Your task to perform on an android device: manage bookmarks in the chrome app Image 0: 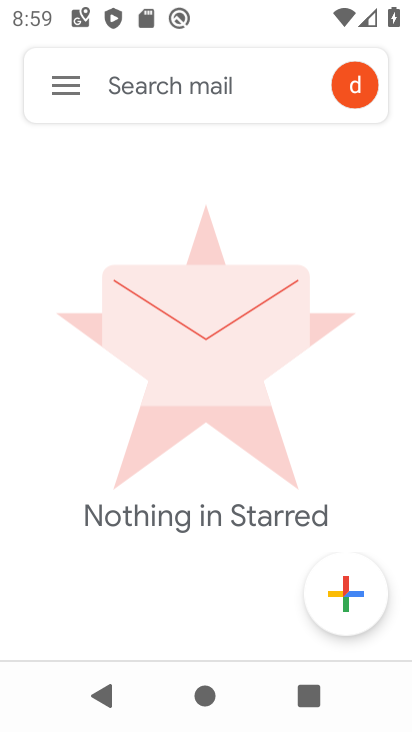
Step 0: press home button
Your task to perform on an android device: manage bookmarks in the chrome app Image 1: 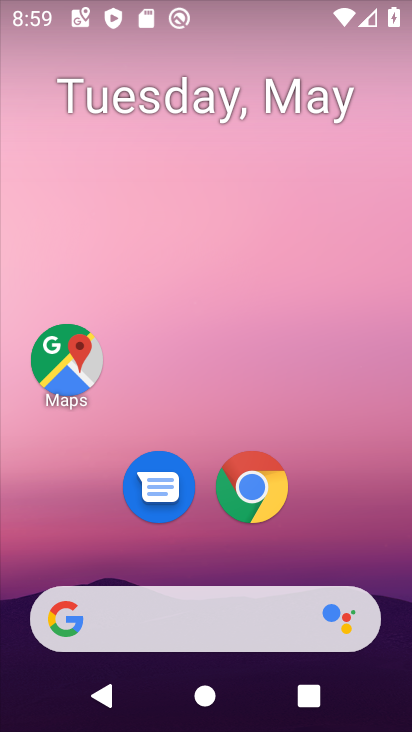
Step 1: drag from (375, 535) to (372, 259)
Your task to perform on an android device: manage bookmarks in the chrome app Image 2: 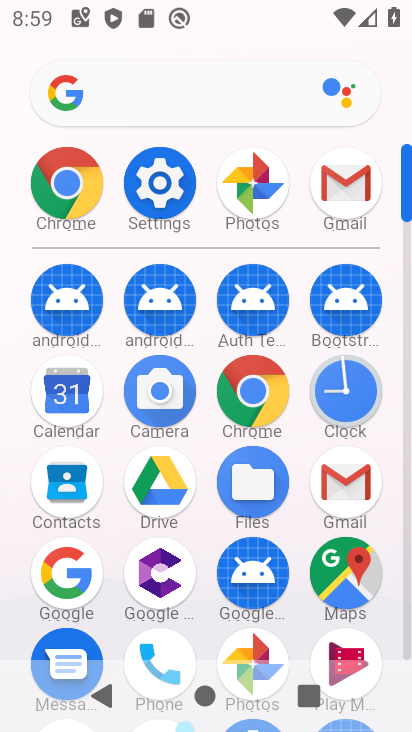
Step 2: click (268, 409)
Your task to perform on an android device: manage bookmarks in the chrome app Image 3: 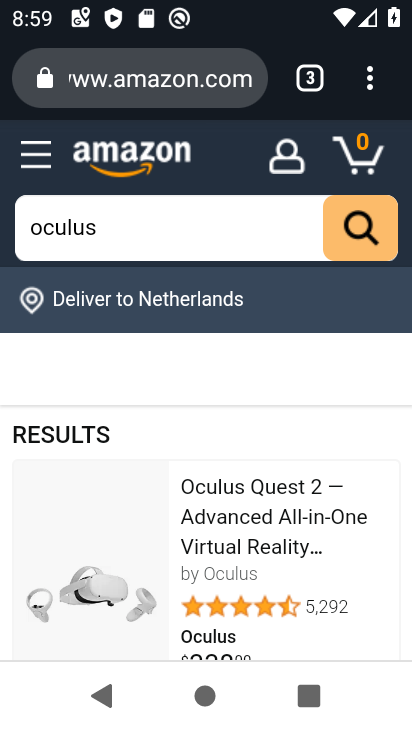
Step 3: click (370, 95)
Your task to perform on an android device: manage bookmarks in the chrome app Image 4: 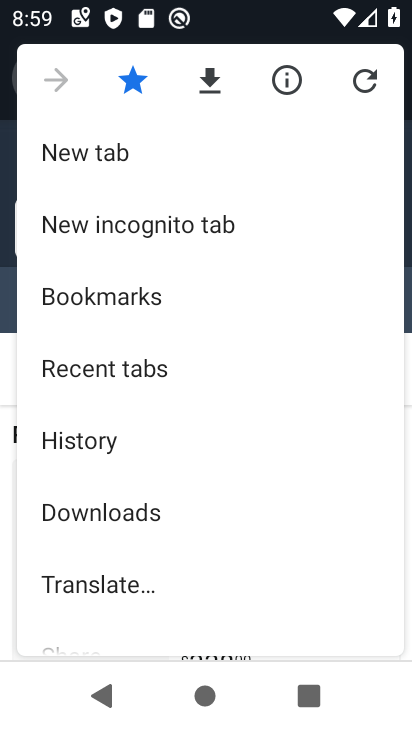
Step 4: click (161, 297)
Your task to perform on an android device: manage bookmarks in the chrome app Image 5: 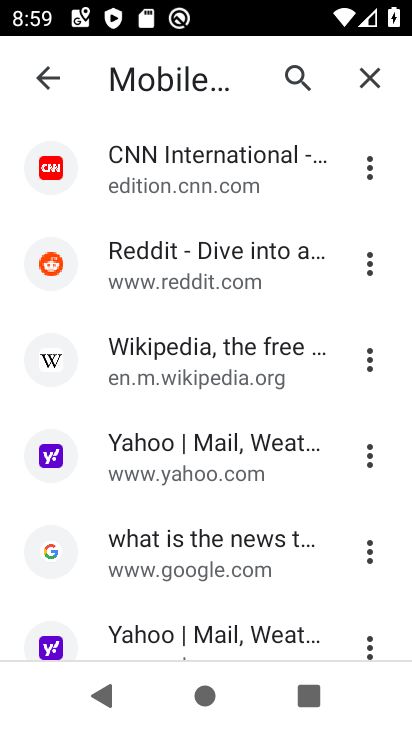
Step 5: click (371, 171)
Your task to perform on an android device: manage bookmarks in the chrome app Image 6: 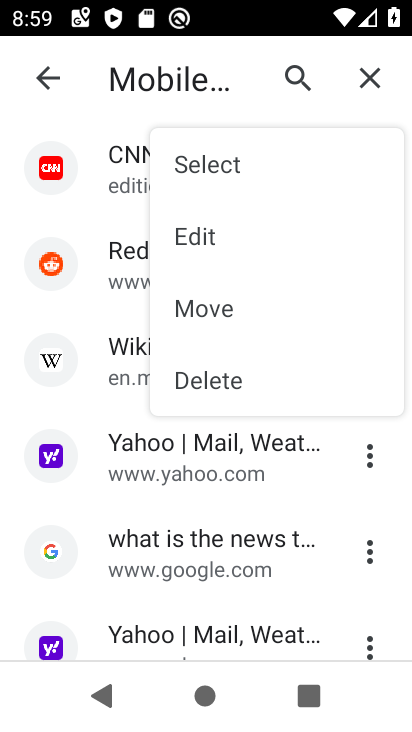
Step 6: click (215, 242)
Your task to perform on an android device: manage bookmarks in the chrome app Image 7: 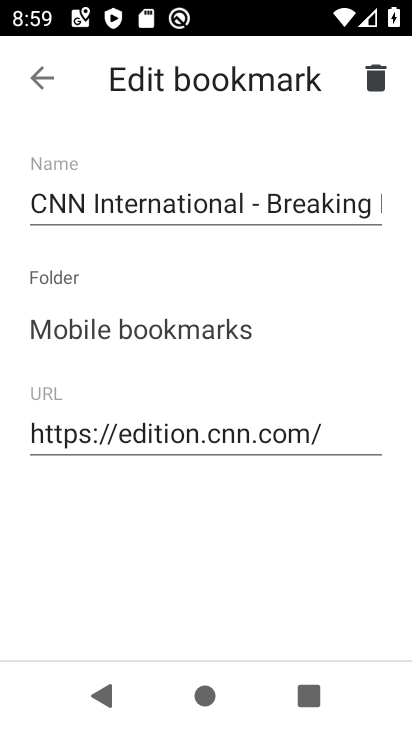
Step 7: click (246, 203)
Your task to perform on an android device: manage bookmarks in the chrome app Image 8: 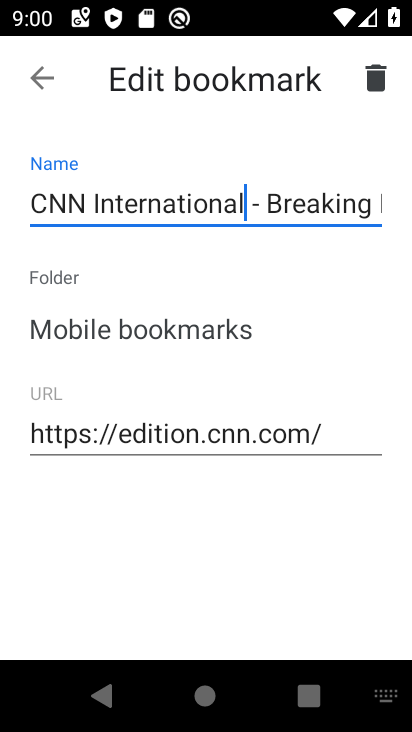
Step 8: type "lll"
Your task to perform on an android device: manage bookmarks in the chrome app Image 9: 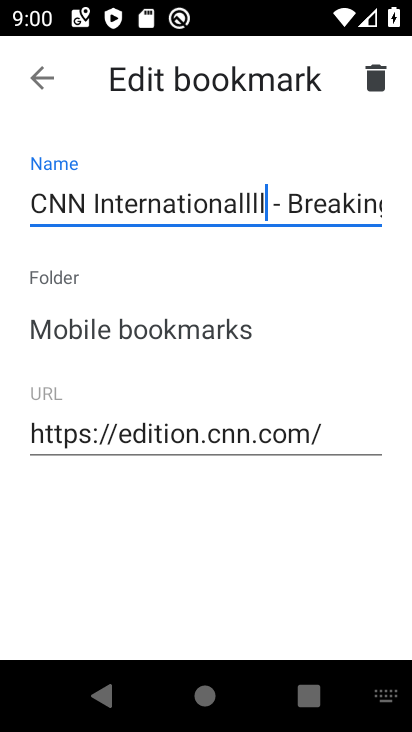
Step 9: click (40, 88)
Your task to perform on an android device: manage bookmarks in the chrome app Image 10: 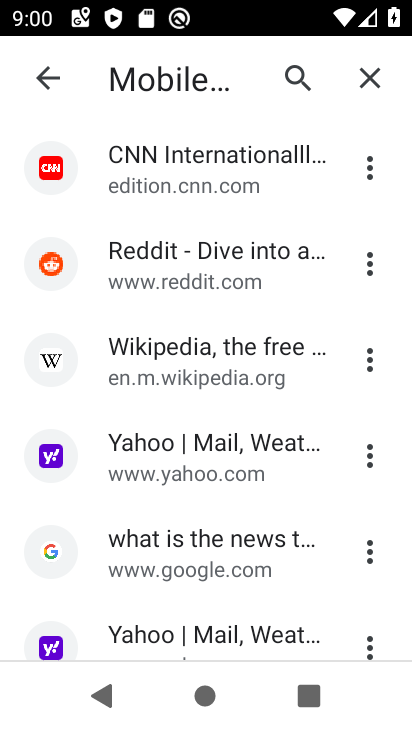
Step 10: task complete